Your task to perform on an android device: Go to Reddit.com Image 0: 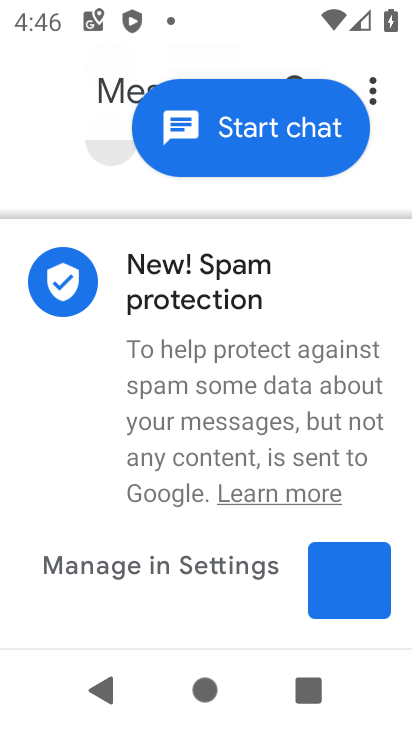
Step 0: press home button
Your task to perform on an android device: Go to Reddit.com Image 1: 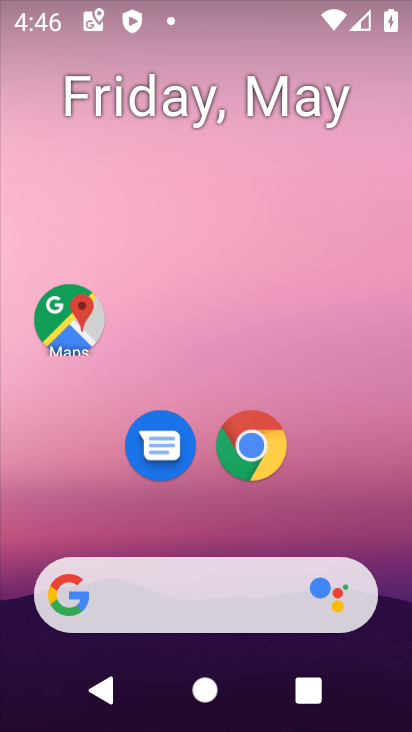
Step 1: click (200, 592)
Your task to perform on an android device: Go to Reddit.com Image 2: 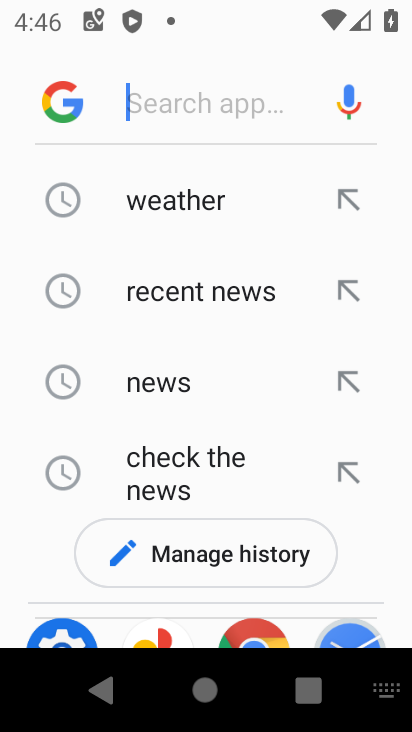
Step 2: type " Reddit.com"
Your task to perform on an android device: Go to Reddit.com Image 3: 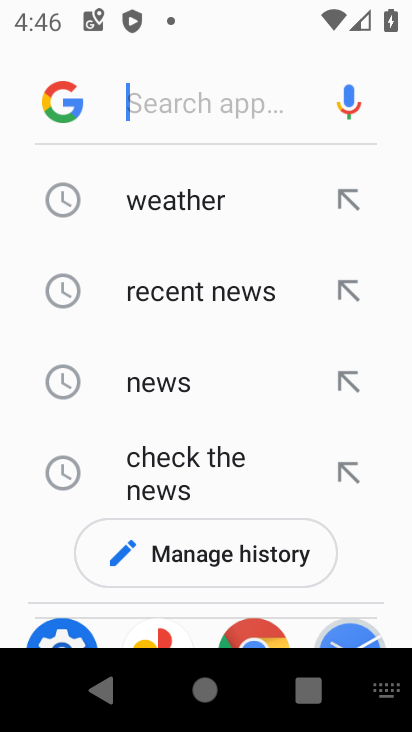
Step 3: click (168, 104)
Your task to perform on an android device: Go to Reddit.com Image 4: 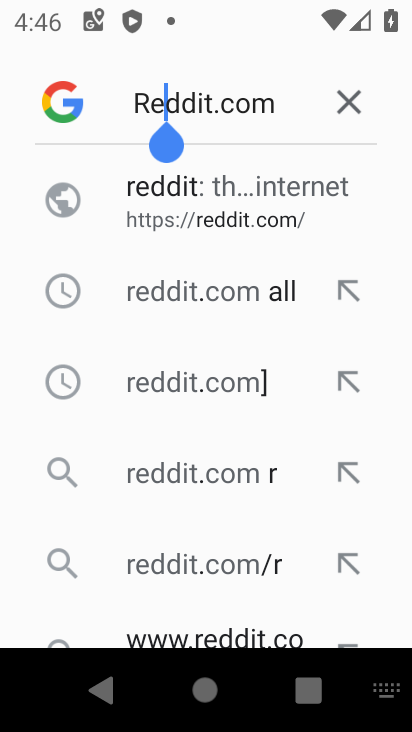
Step 4: click (216, 203)
Your task to perform on an android device: Go to Reddit.com Image 5: 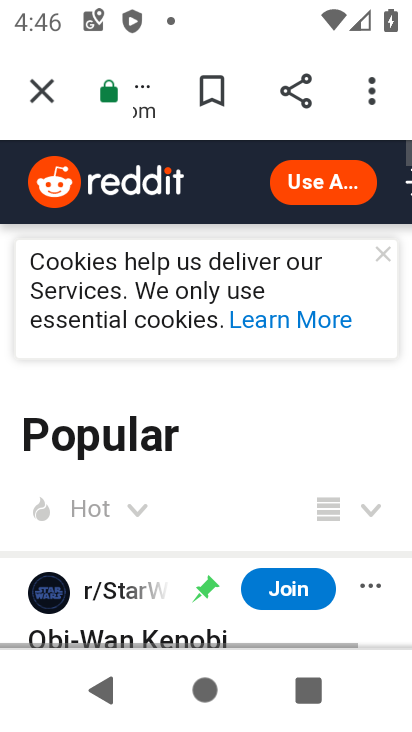
Step 5: task complete